Your task to perform on an android device: open app "PlayWell" Image 0: 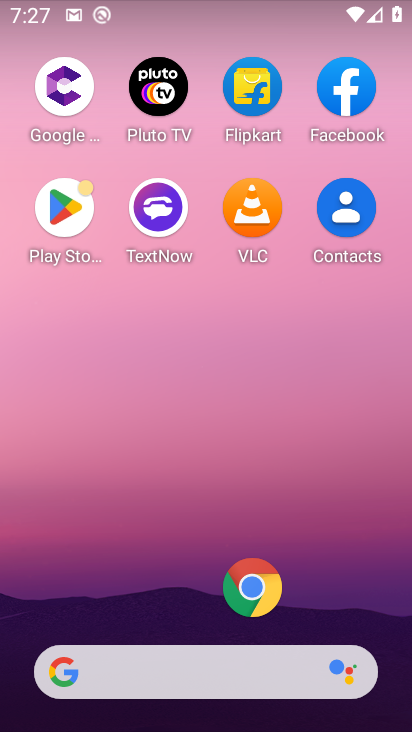
Step 0: click (89, 251)
Your task to perform on an android device: open app "PlayWell" Image 1: 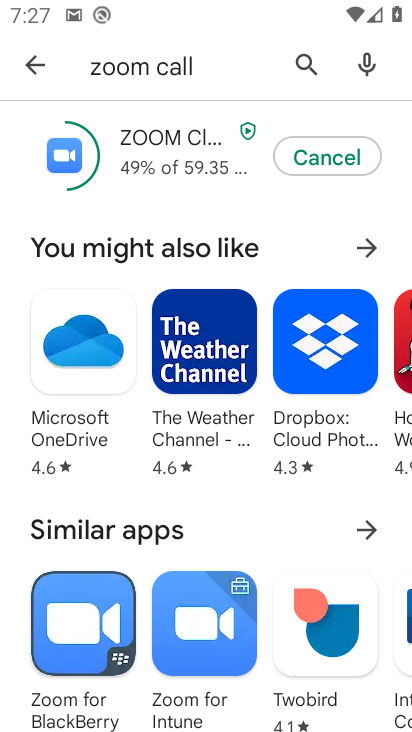
Step 1: click (301, 75)
Your task to perform on an android device: open app "PlayWell" Image 2: 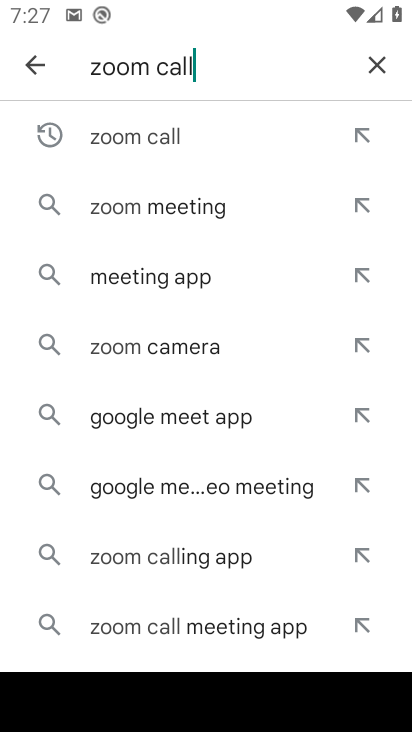
Step 2: click (368, 74)
Your task to perform on an android device: open app "PlayWell" Image 3: 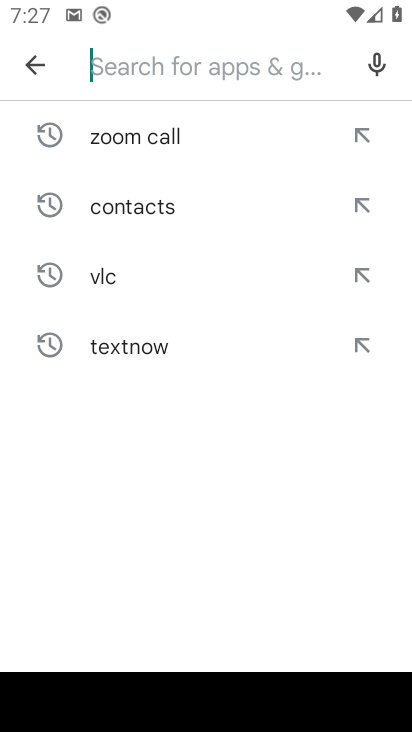
Step 3: type "playwell"
Your task to perform on an android device: open app "PlayWell" Image 4: 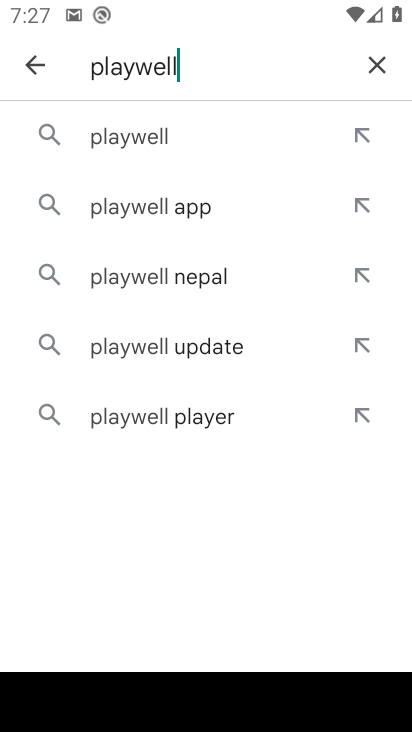
Step 4: click (320, 138)
Your task to perform on an android device: open app "PlayWell" Image 5: 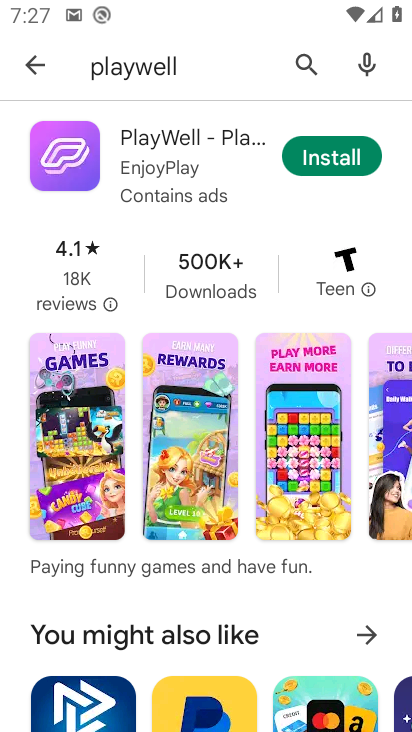
Step 5: click (320, 138)
Your task to perform on an android device: open app "PlayWell" Image 6: 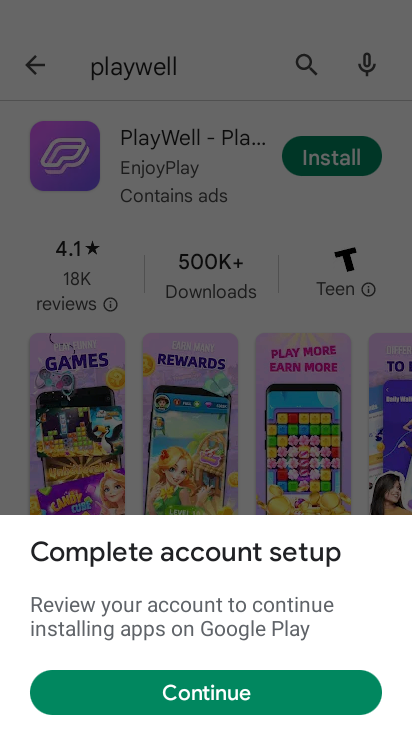
Step 6: click (182, 682)
Your task to perform on an android device: open app "PlayWell" Image 7: 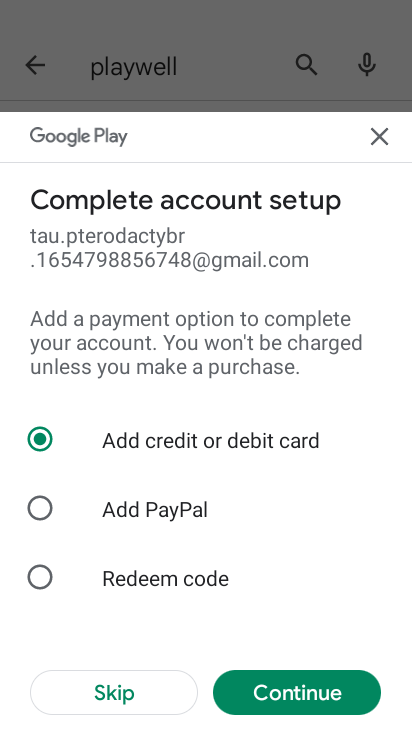
Step 7: click (143, 679)
Your task to perform on an android device: open app "PlayWell" Image 8: 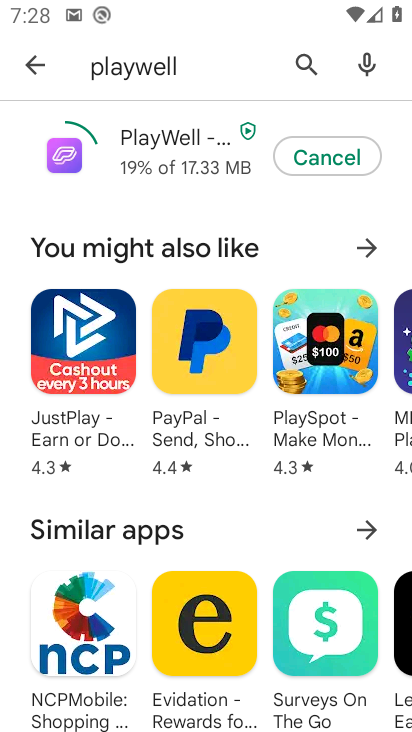
Step 8: task complete